Your task to perform on an android device: turn off translation in the chrome app Image 0: 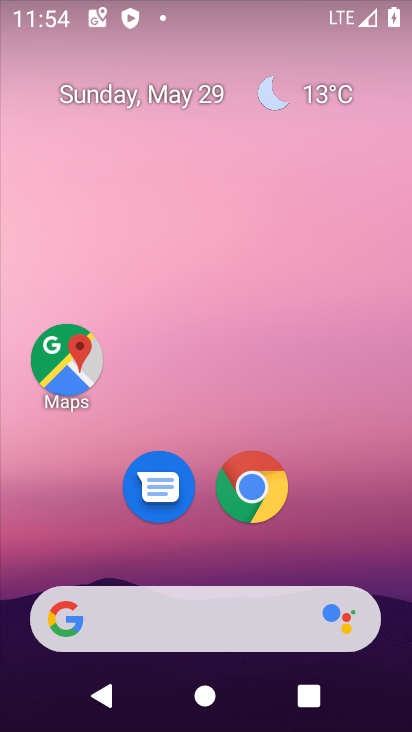
Step 0: press home button
Your task to perform on an android device: turn off translation in the chrome app Image 1: 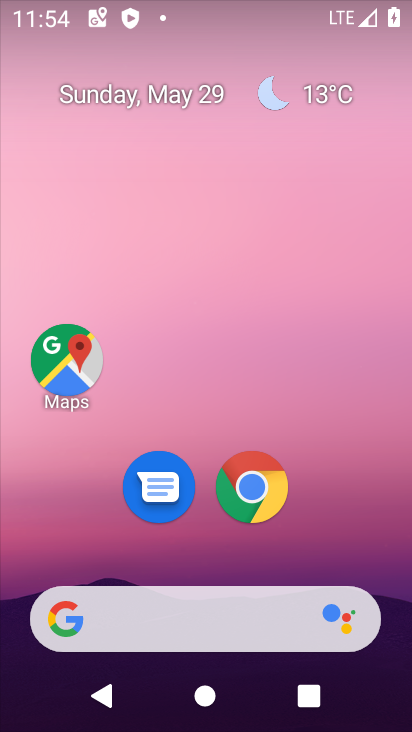
Step 1: click (252, 479)
Your task to perform on an android device: turn off translation in the chrome app Image 2: 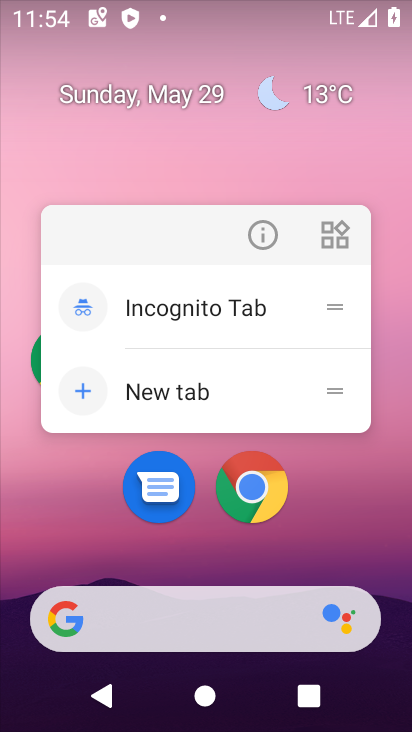
Step 2: click (245, 441)
Your task to perform on an android device: turn off translation in the chrome app Image 3: 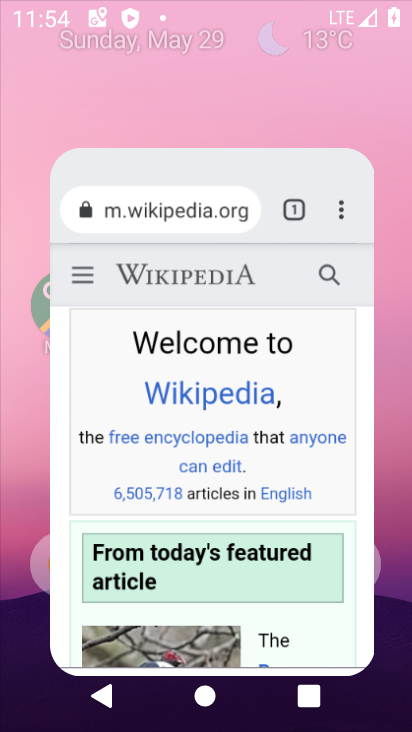
Step 3: click (246, 467)
Your task to perform on an android device: turn off translation in the chrome app Image 4: 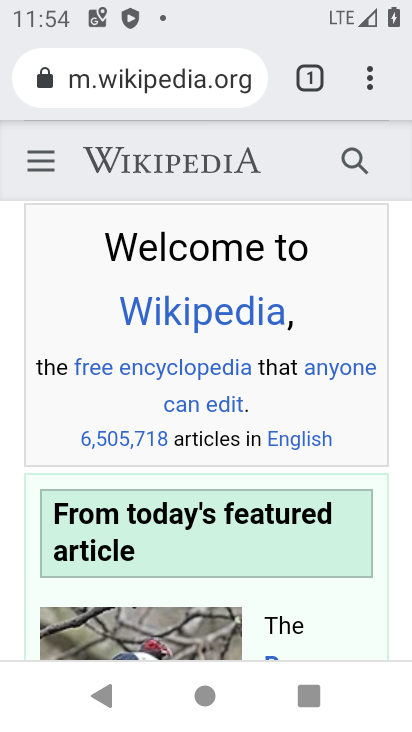
Step 4: click (368, 95)
Your task to perform on an android device: turn off translation in the chrome app Image 5: 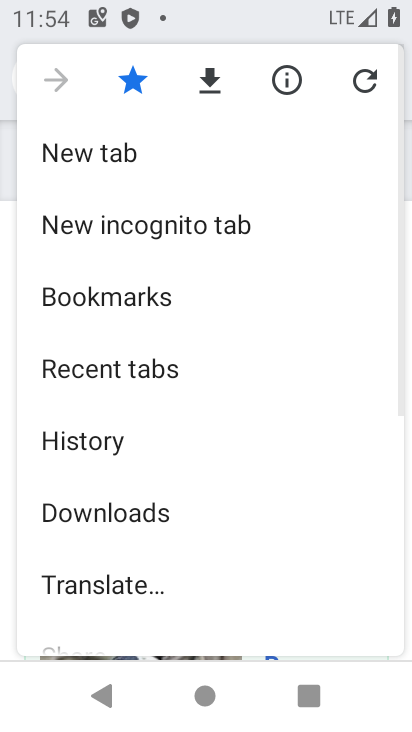
Step 5: drag from (261, 561) to (228, 186)
Your task to perform on an android device: turn off translation in the chrome app Image 6: 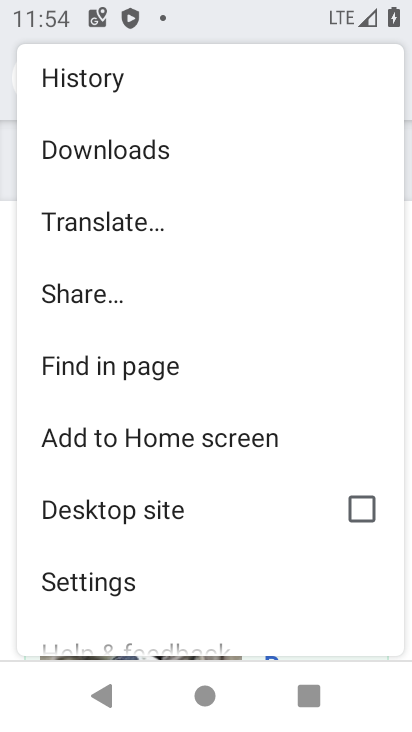
Step 6: click (158, 571)
Your task to perform on an android device: turn off translation in the chrome app Image 7: 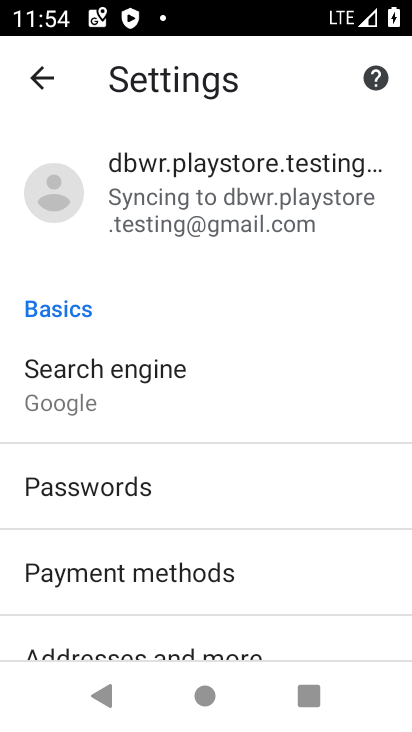
Step 7: drag from (192, 622) to (261, 384)
Your task to perform on an android device: turn off translation in the chrome app Image 8: 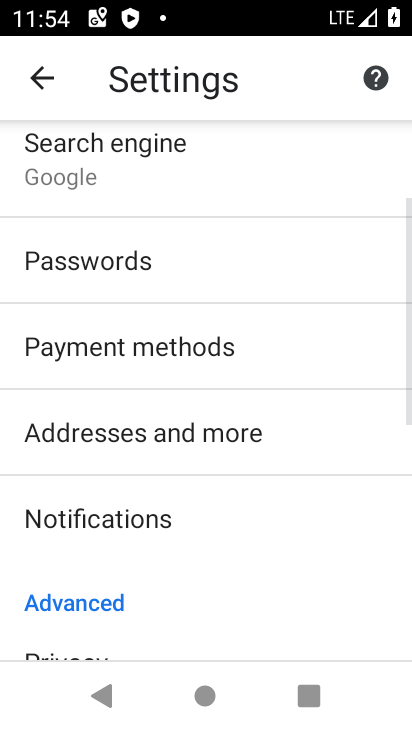
Step 8: drag from (236, 576) to (243, 193)
Your task to perform on an android device: turn off translation in the chrome app Image 9: 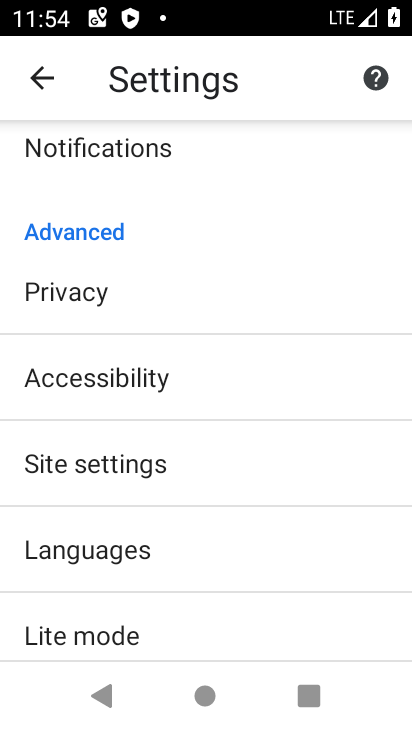
Step 9: click (155, 546)
Your task to perform on an android device: turn off translation in the chrome app Image 10: 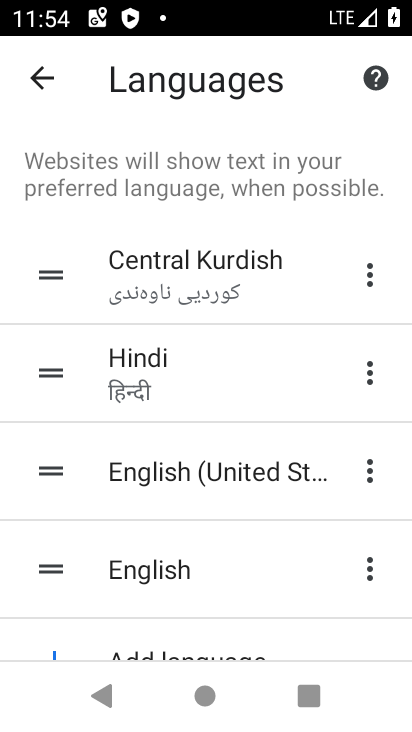
Step 10: drag from (240, 513) to (241, 196)
Your task to perform on an android device: turn off translation in the chrome app Image 11: 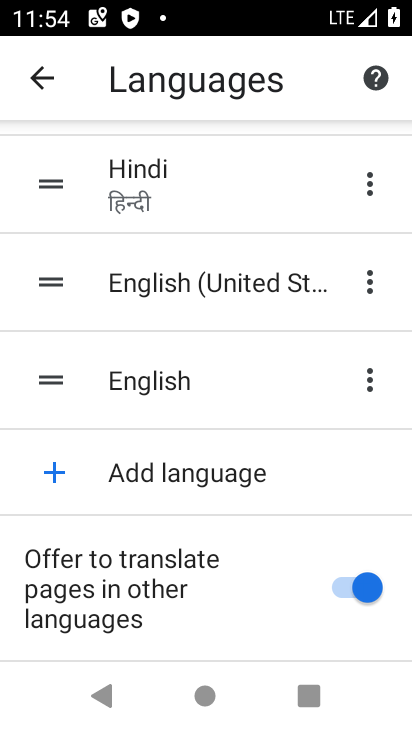
Step 11: click (374, 605)
Your task to perform on an android device: turn off translation in the chrome app Image 12: 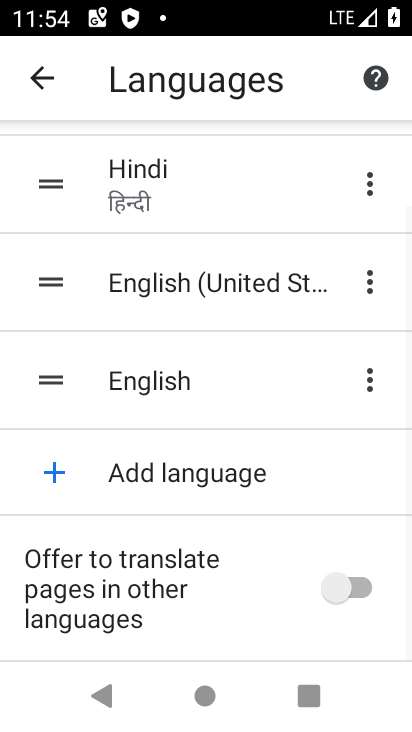
Step 12: task complete